Your task to perform on an android device: move an email to a new category in the gmail app Image 0: 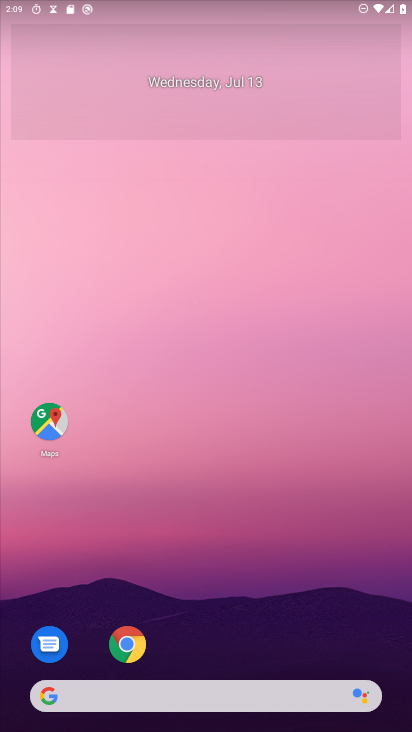
Step 0: press home button
Your task to perform on an android device: move an email to a new category in the gmail app Image 1: 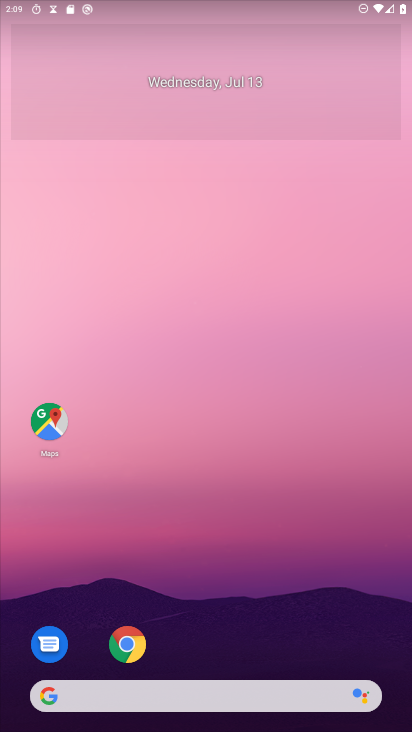
Step 1: drag from (282, 574) to (351, 328)
Your task to perform on an android device: move an email to a new category in the gmail app Image 2: 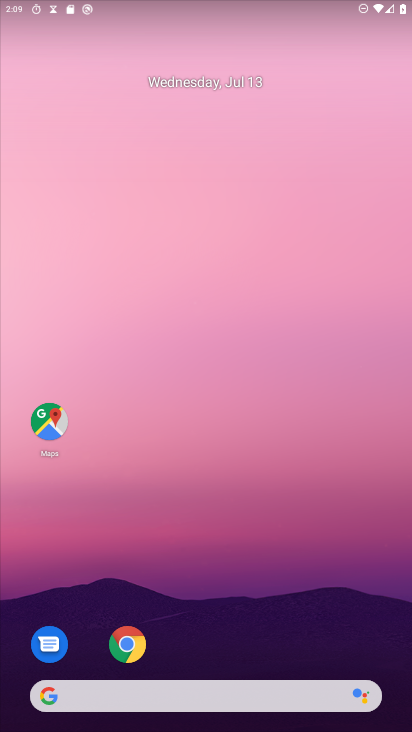
Step 2: drag from (267, 479) to (310, 19)
Your task to perform on an android device: move an email to a new category in the gmail app Image 3: 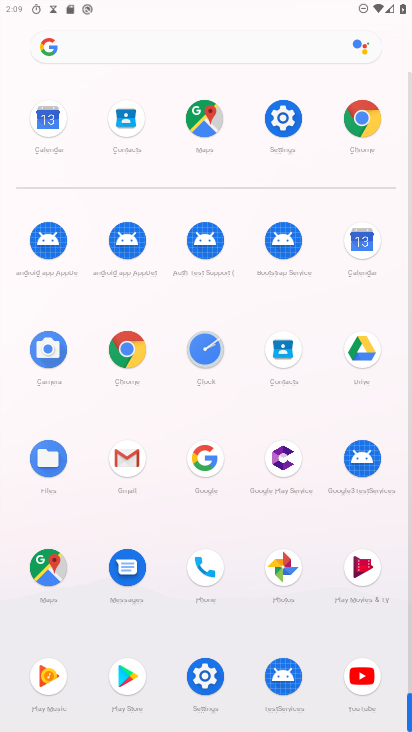
Step 3: click (136, 460)
Your task to perform on an android device: move an email to a new category in the gmail app Image 4: 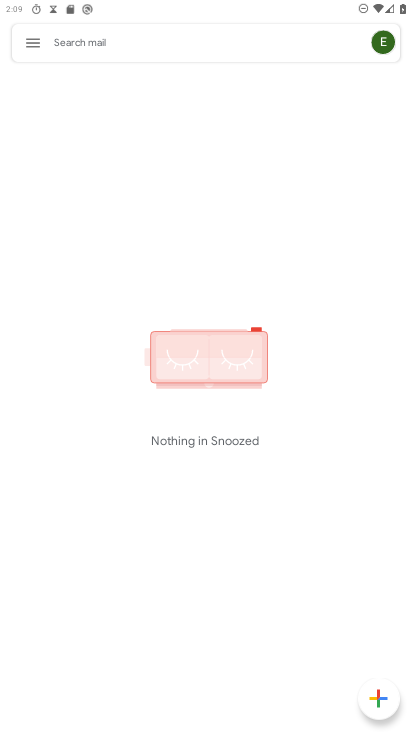
Step 4: click (28, 40)
Your task to perform on an android device: move an email to a new category in the gmail app Image 5: 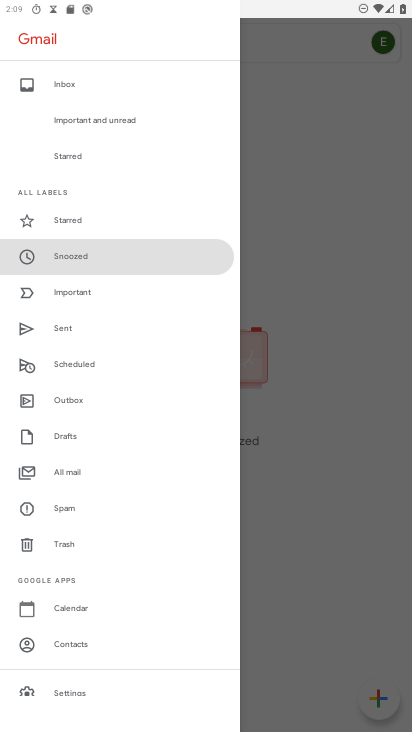
Step 5: click (63, 469)
Your task to perform on an android device: move an email to a new category in the gmail app Image 6: 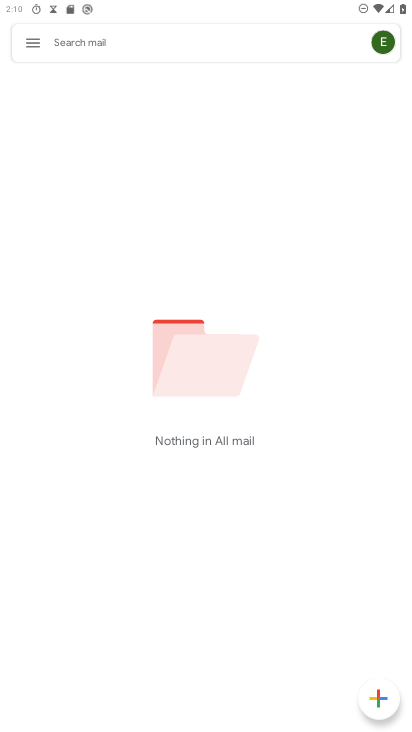
Step 6: task complete